Your task to perform on an android device: empty trash in the gmail app Image 0: 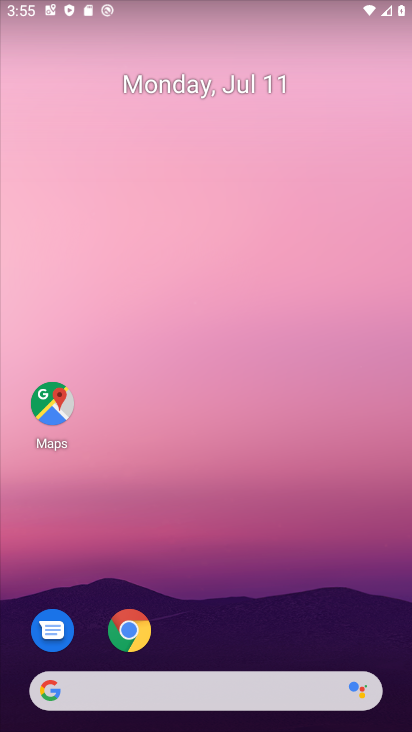
Step 0: drag from (257, 718) to (194, 83)
Your task to perform on an android device: empty trash in the gmail app Image 1: 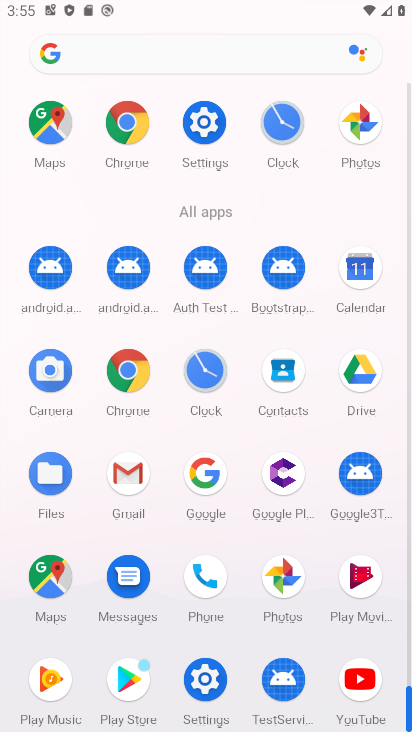
Step 1: click (138, 474)
Your task to perform on an android device: empty trash in the gmail app Image 2: 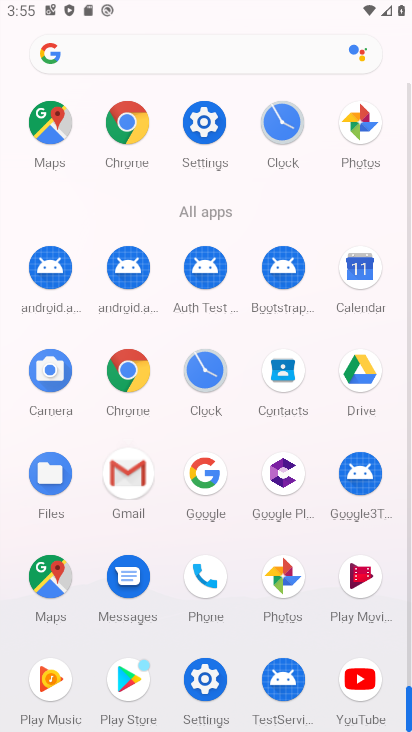
Step 2: click (137, 482)
Your task to perform on an android device: empty trash in the gmail app Image 3: 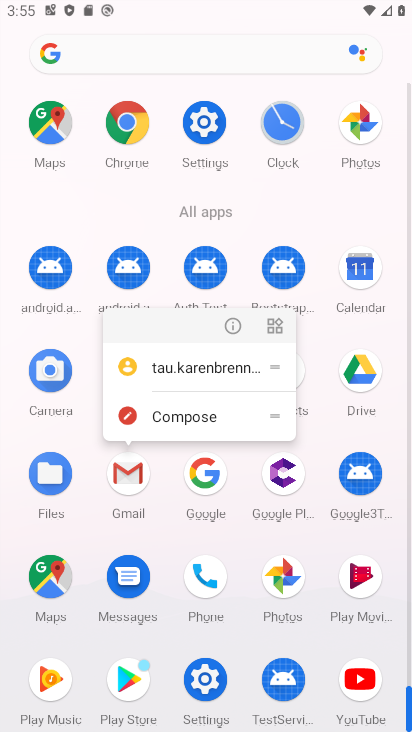
Step 3: click (137, 482)
Your task to perform on an android device: empty trash in the gmail app Image 4: 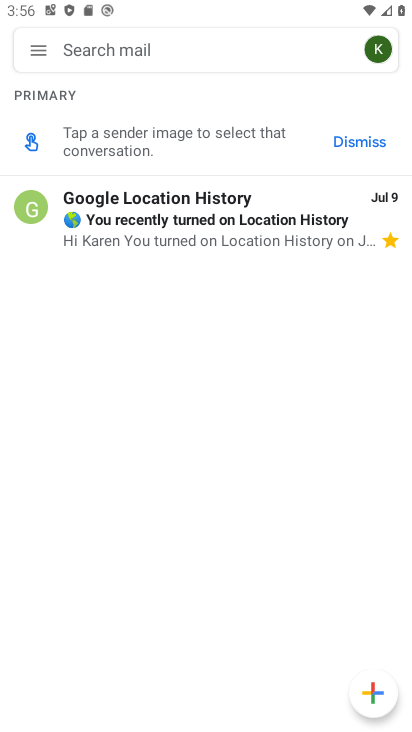
Step 4: press back button
Your task to perform on an android device: empty trash in the gmail app Image 5: 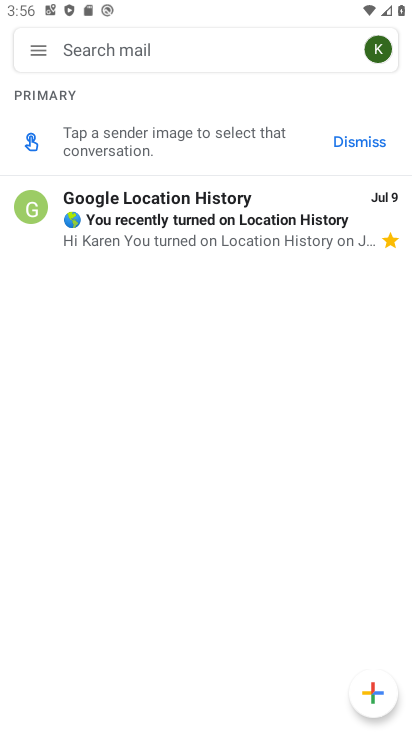
Step 5: press back button
Your task to perform on an android device: empty trash in the gmail app Image 6: 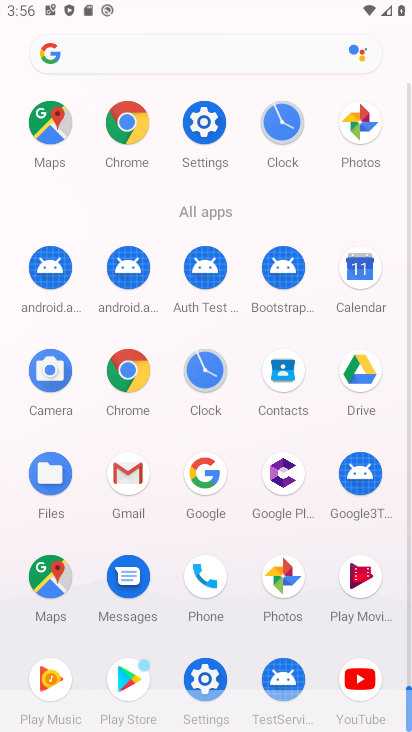
Step 6: press back button
Your task to perform on an android device: empty trash in the gmail app Image 7: 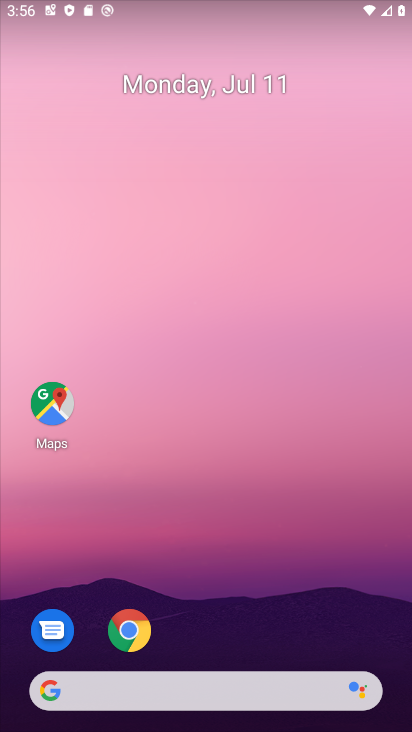
Step 7: drag from (252, 687) to (154, 71)
Your task to perform on an android device: empty trash in the gmail app Image 8: 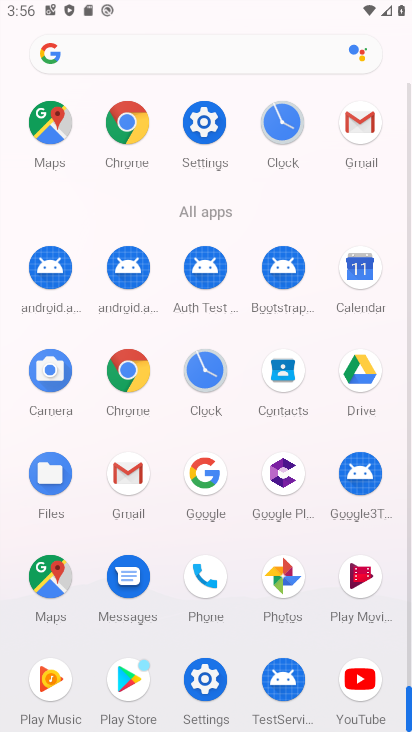
Step 8: click (138, 473)
Your task to perform on an android device: empty trash in the gmail app Image 9: 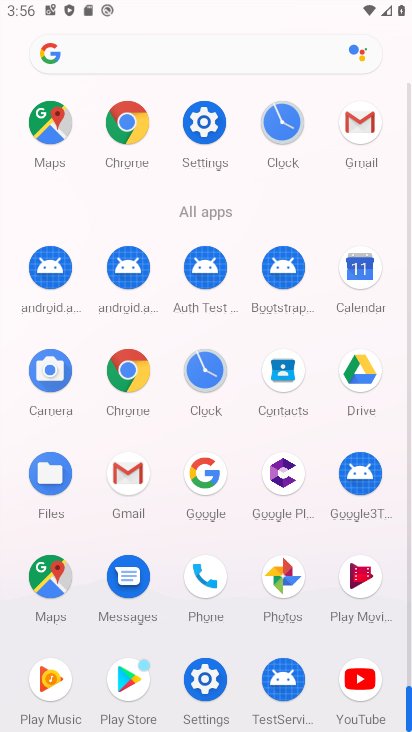
Step 9: click (138, 473)
Your task to perform on an android device: empty trash in the gmail app Image 10: 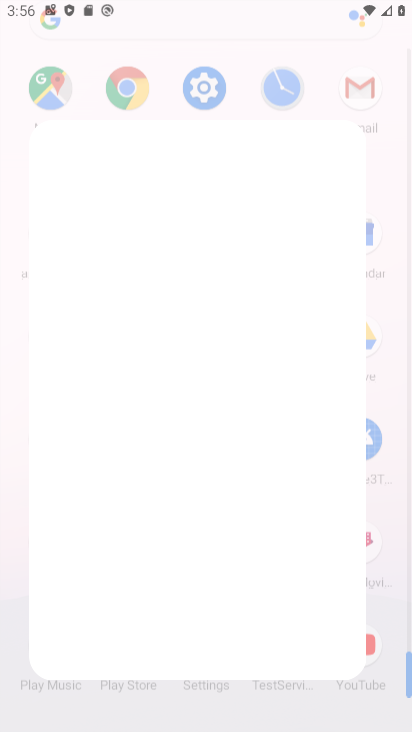
Step 10: click (138, 473)
Your task to perform on an android device: empty trash in the gmail app Image 11: 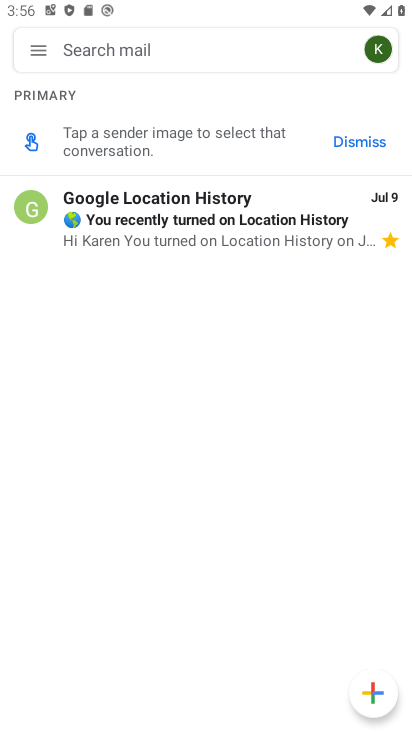
Step 11: click (46, 49)
Your task to perform on an android device: empty trash in the gmail app Image 12: 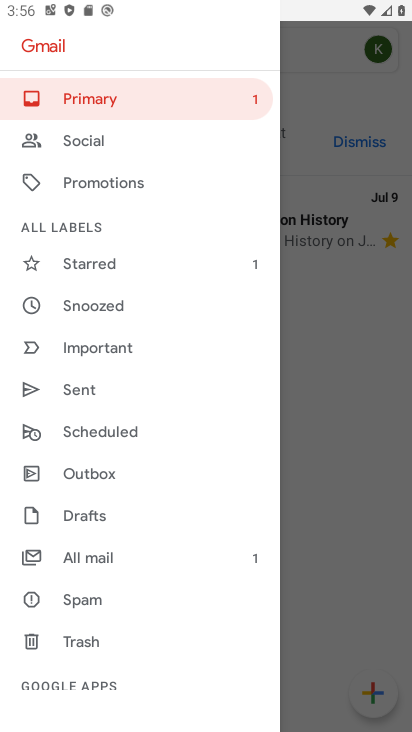
Step 12: click (80, 553)
Your task to perform on an android device: empty trash in the gmail app Image 13: 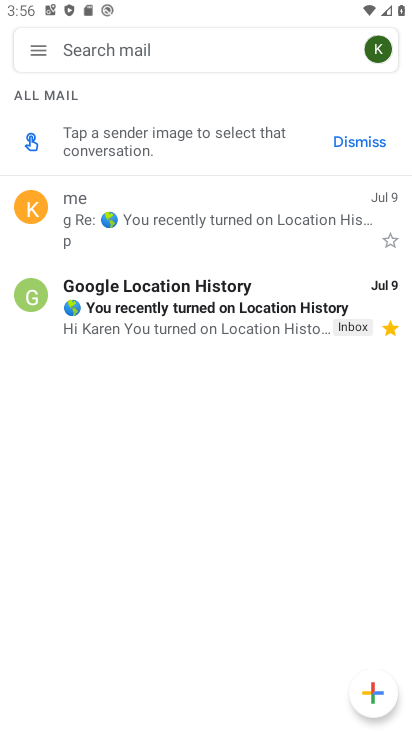
Step 13: click (41, 51)
Your task to perform on an android device: empty trash in the gmail app Image 14: 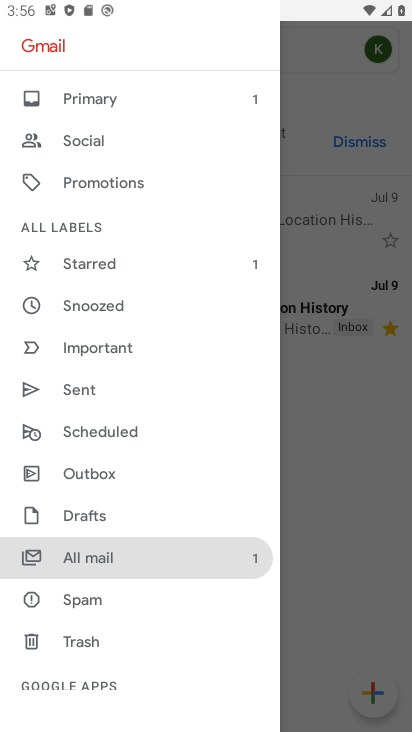
Step 14: click (84, 636)
Your task to perform on an android device: empty trash in the gmail app Image 15: 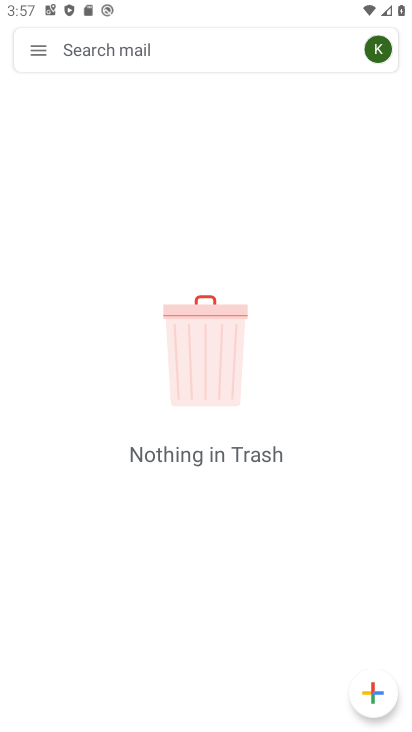
Step 15: press back button
Your task to perform on an android device: empty trash in the gmail app Image 16: 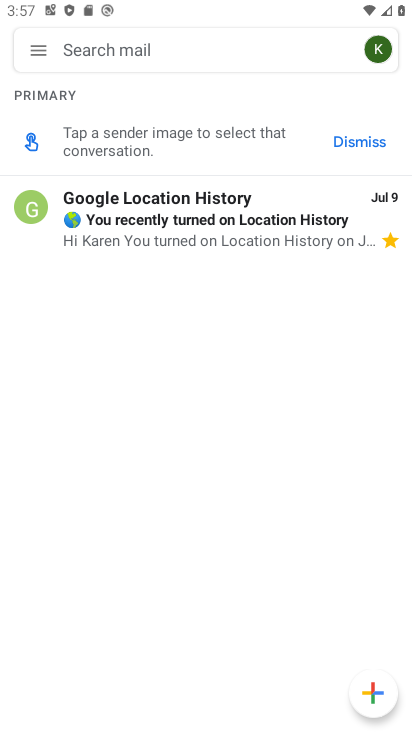
Step 16: click (32, 46)
Your task to perform on an android device: empty trash in the gmail app Image 17: 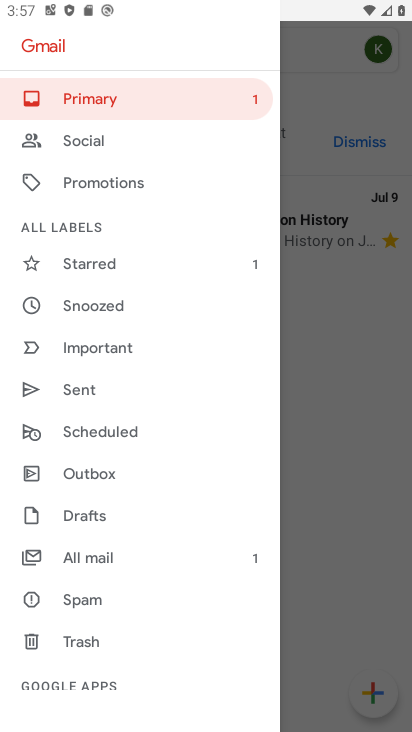
Step 17: click (79, 638)
Your task to perform on an android device: empty trash in the gmail app Image 18: 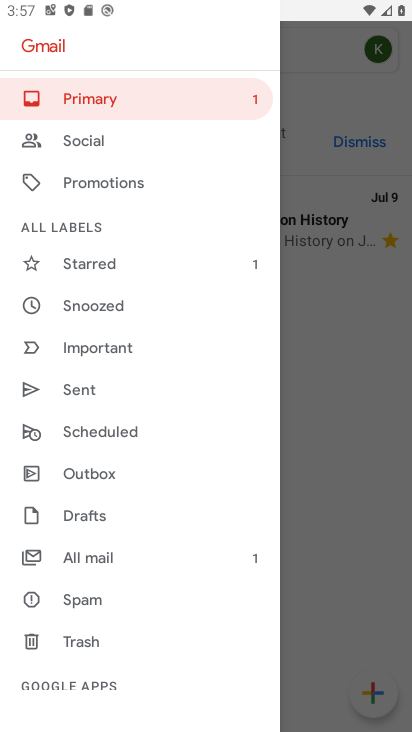
Step 18: click (81, 643)
Your task to perform on an android device: empty trash in the gmail app Image 19: 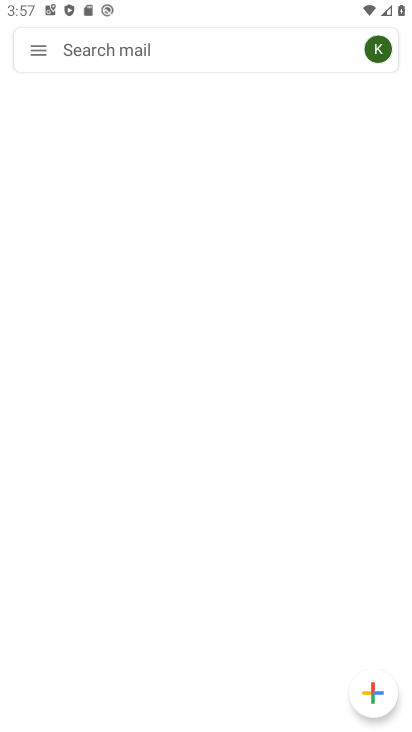
Step 19: click (87, 649)
Your task to perform on an android device: empty trash in the gmail app Image 20: 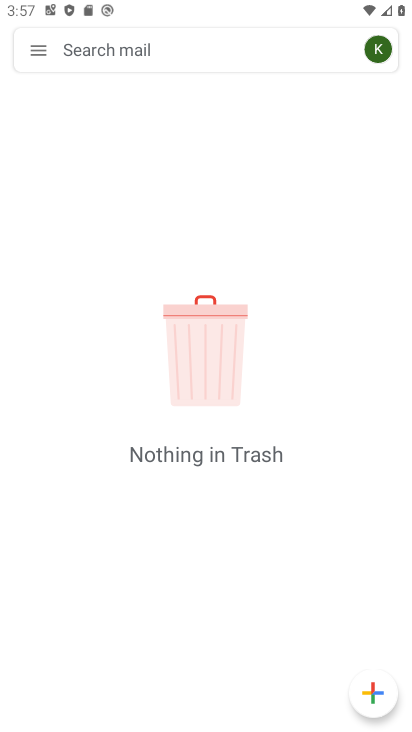
Step 20: task complete